Your task to perform on an android device: Open the phone app and click the voicemail tab. Image 0: 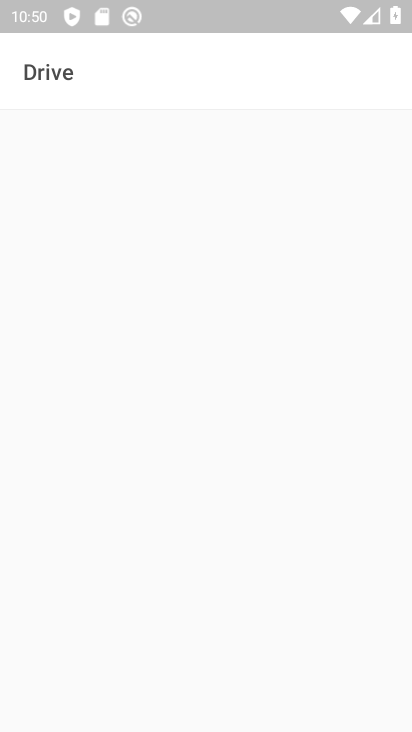
Step 0: press home button
Your task to perform on an android device: Open the phone app and click the voicemail tab. Image 1: 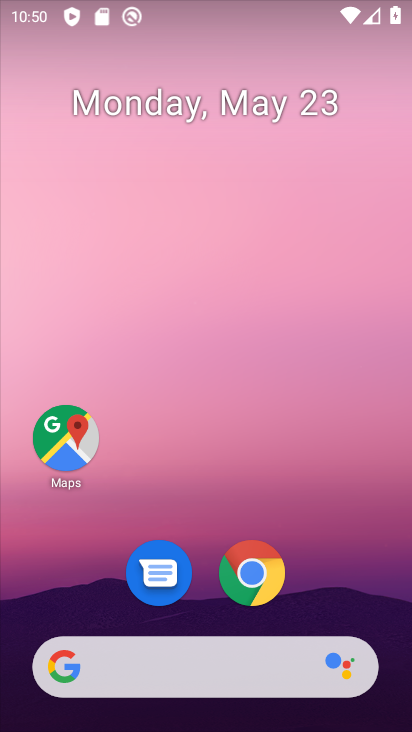
Step 1: drag from (352, 591) to (326, 145)
Your task to perform on an android device: Open the phone app and click the voicemail tab. Image 2: 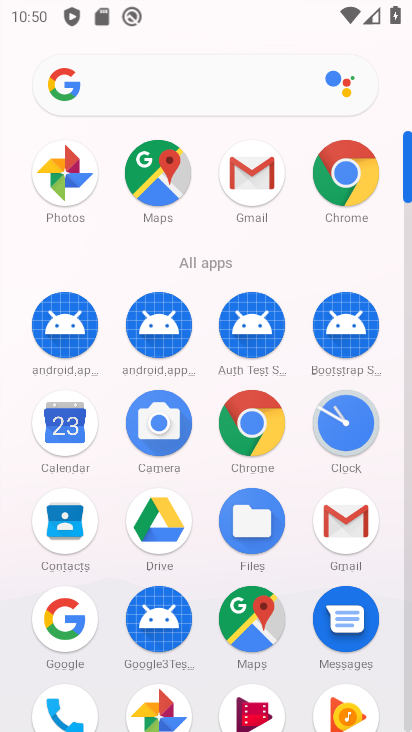
Step 2: drag from (95, 679) to (107, 283)
Your task to perform on an android device: Open the phone app and click the voicemail tab. Image 3: 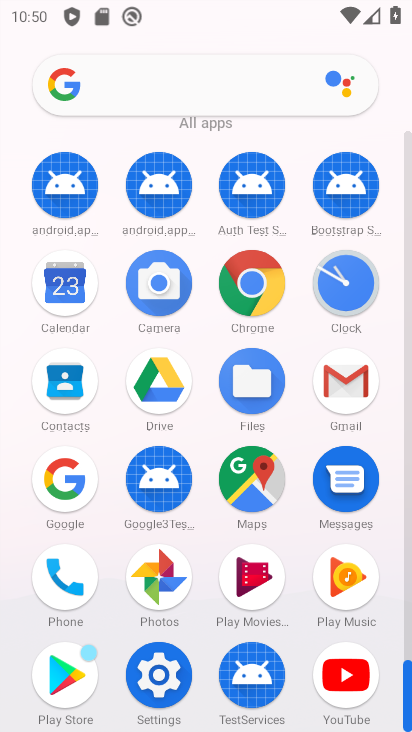
Step 3: click (66, 569)
Your task to perform on an android device: Open the phone app and click the voicemail tab. Image 4: 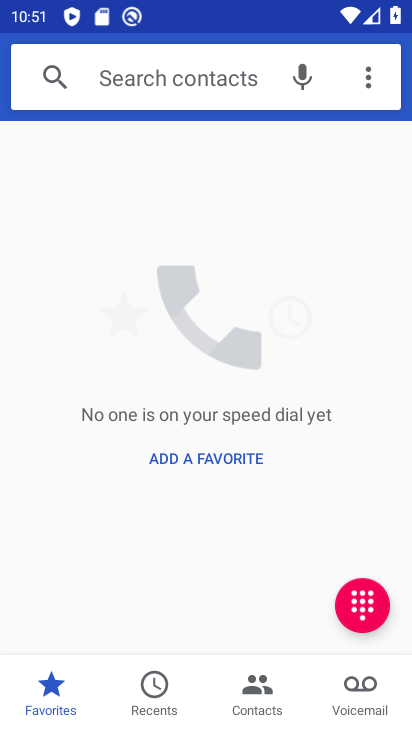
Step 4: click (374, 706)
Your task to perform on an android device: Open the phone app and click the voicemail tab. Image 5: 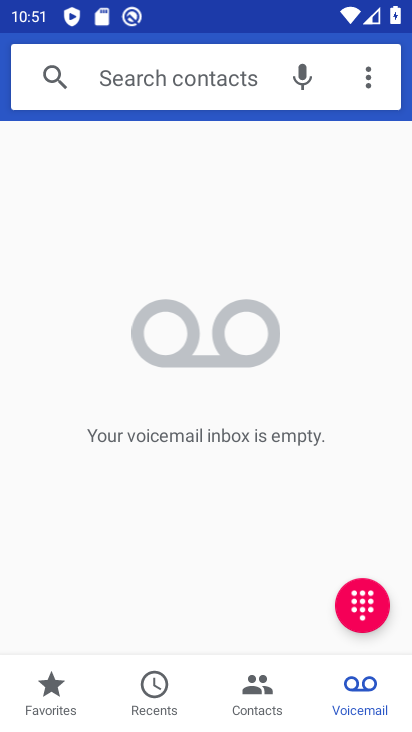
Step 5: task complete